Your task to perform on an android device: Go to Maps Image 0: 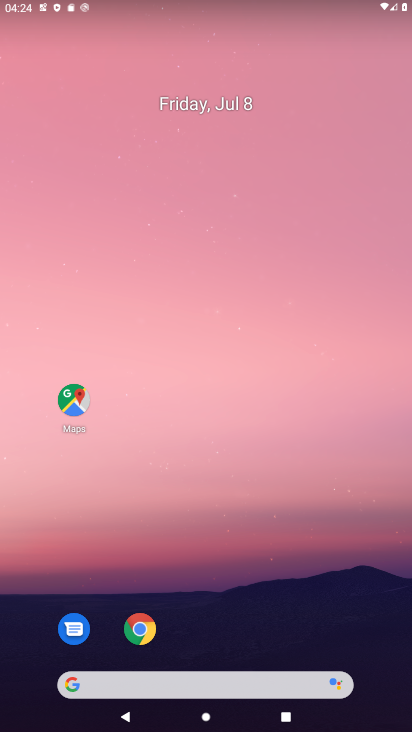
Step 0: drag from (227, 726) to (212, 234)
Your task to perform on an android device: Go to Maps Image 1: 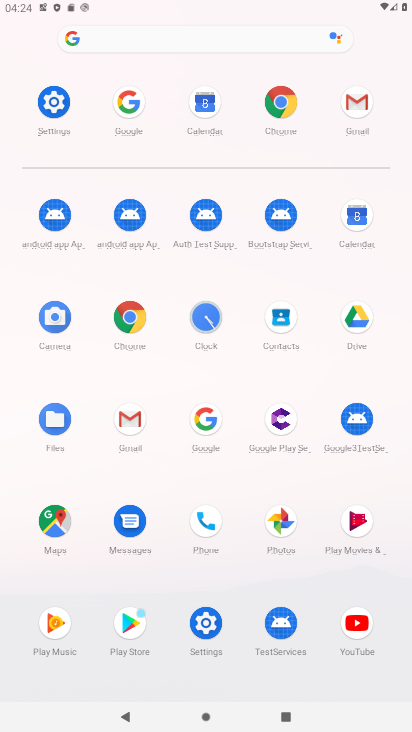
Step 1: click (60, 517)
Your task to perform on an android device: Go to Maps Image 2: 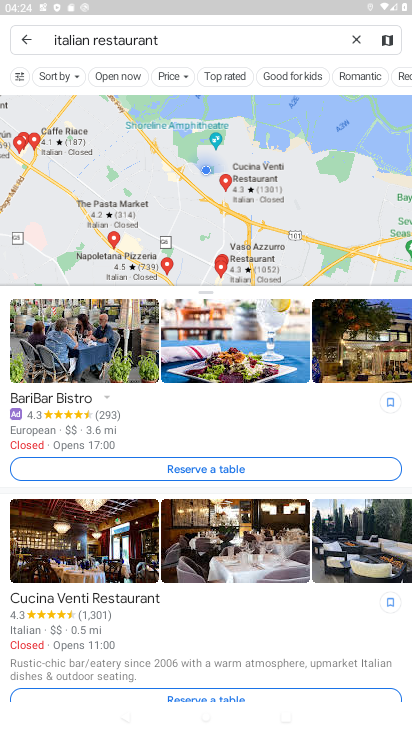
Step 2: task complete